Your task to perform on an android device: Search for seafood restaurants on Google Maps Image 0: 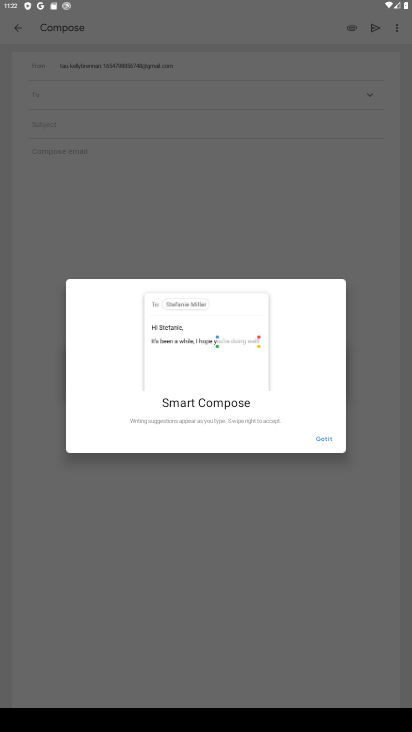
Step 0: press home button
Your task to perform on an android device: Search for seafood restaurants on Google Maps Image 1: 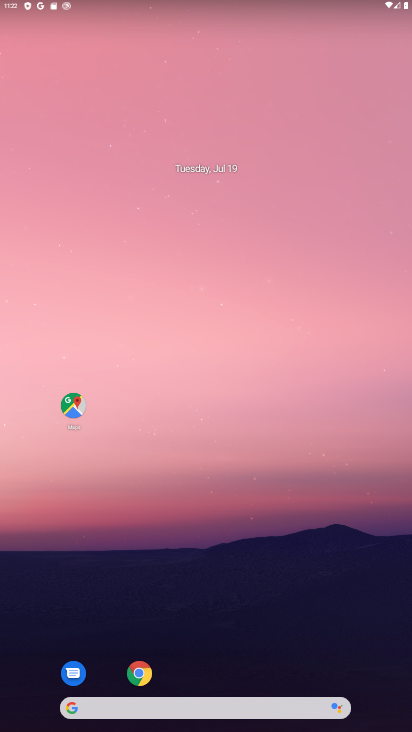
Step 1: click (66, 407)
Your task to perform on an android device: Search for seafood restaurants on Google Maps Image 2: 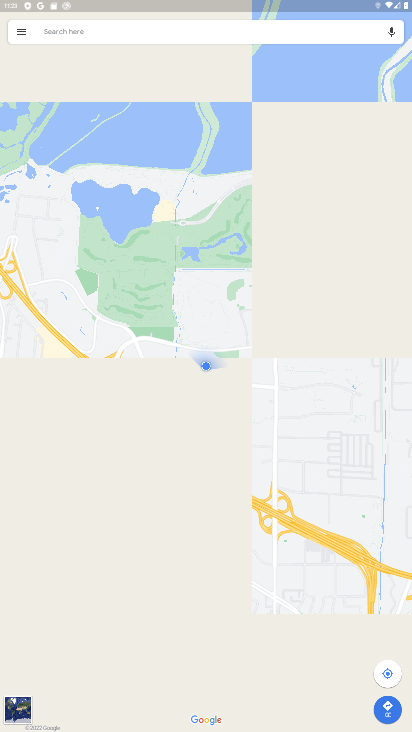
Step 2: click (153, 32)
Your task to perform on an android device: Search for seafood restaurants on Google Maps Image 3: 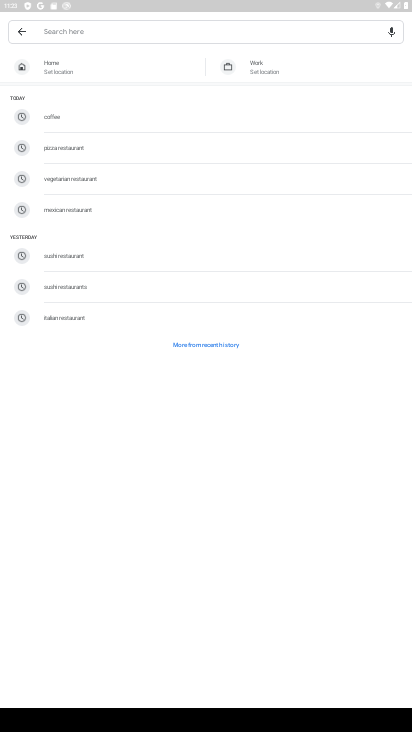
Step 3: type "seafood restaurants"
Your task to perform on an android device: Search for seafood restaurants on Google Maps Image 4: 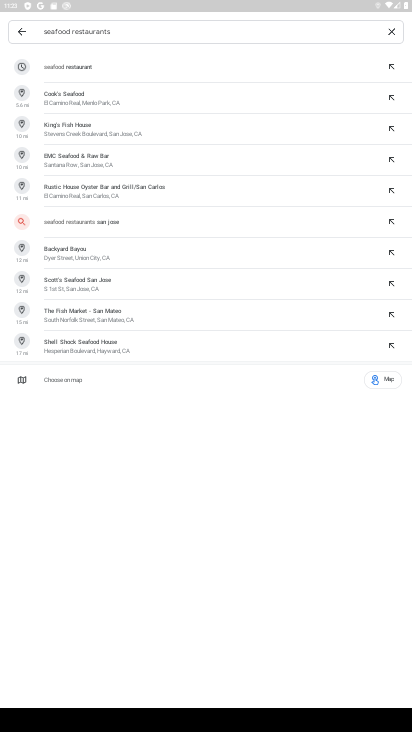
Step 4: click (129, 68)
Your task to perform on an android device: Search for seafood restaurants on Google Maps Image 5: 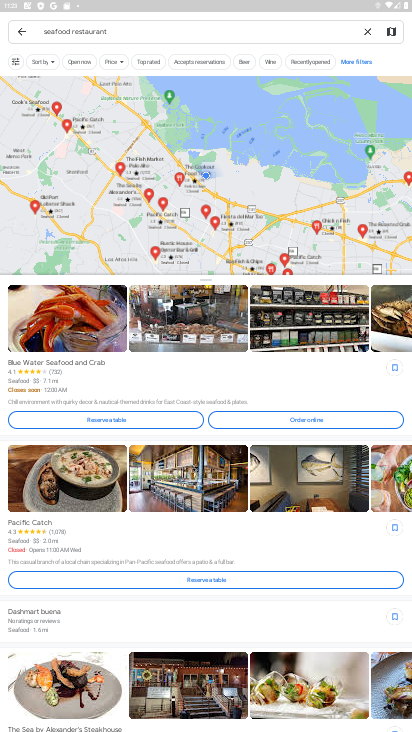
Step 5: task complete